Your task to perform on an android device: toggle sleep mode Image 0: 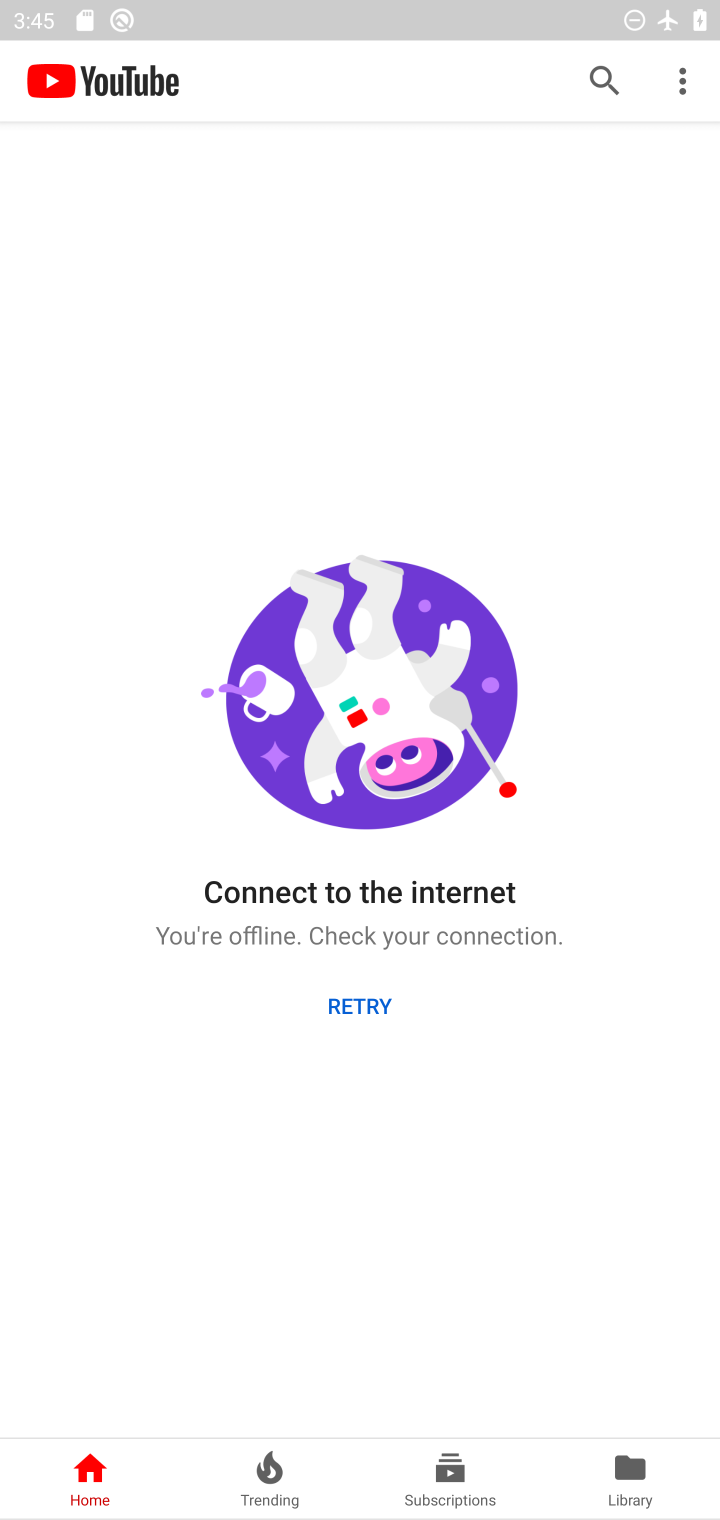
Step 0: press home button
Your task to perform on an android device: toggle sleep mode Image 1: 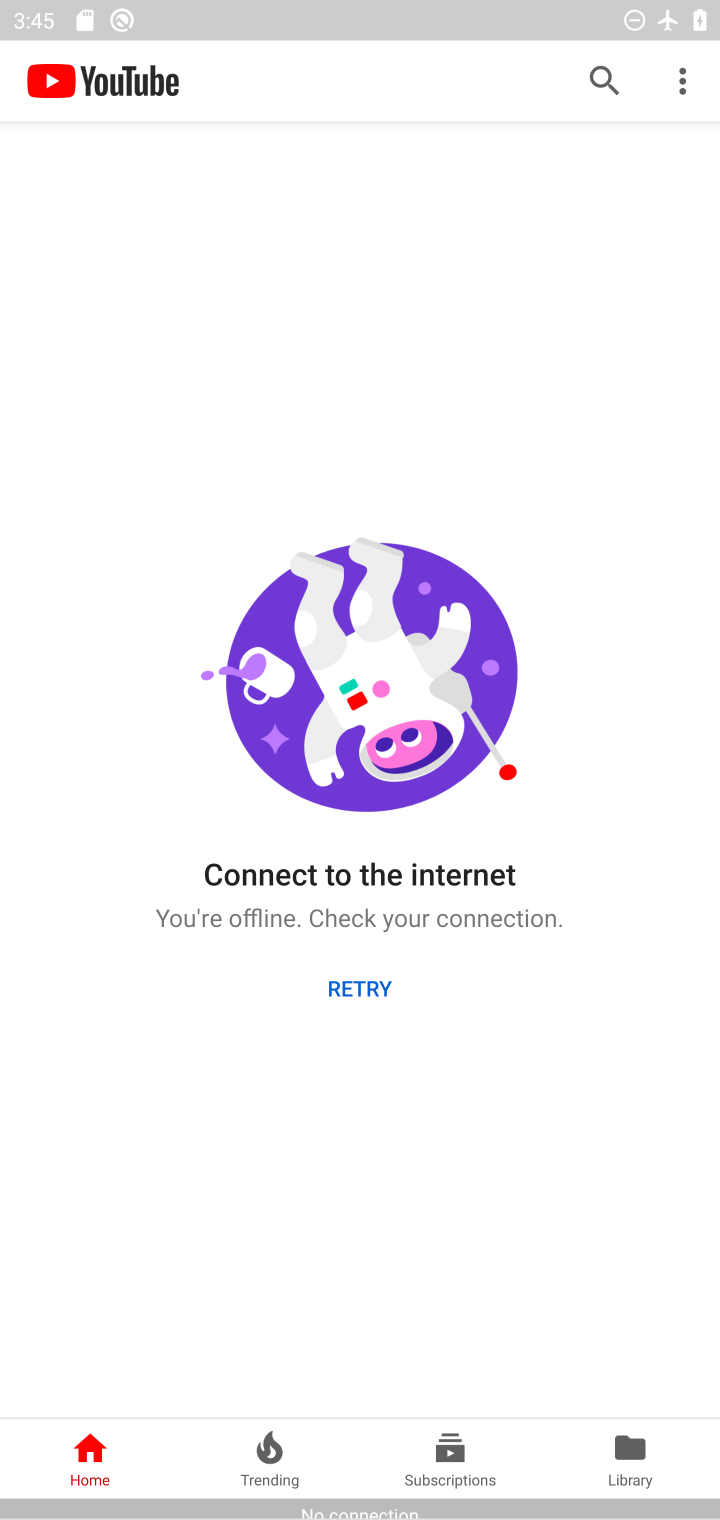
Step 1: press home button
Your task to perform on an android device: toggle sleep mode Image 2: 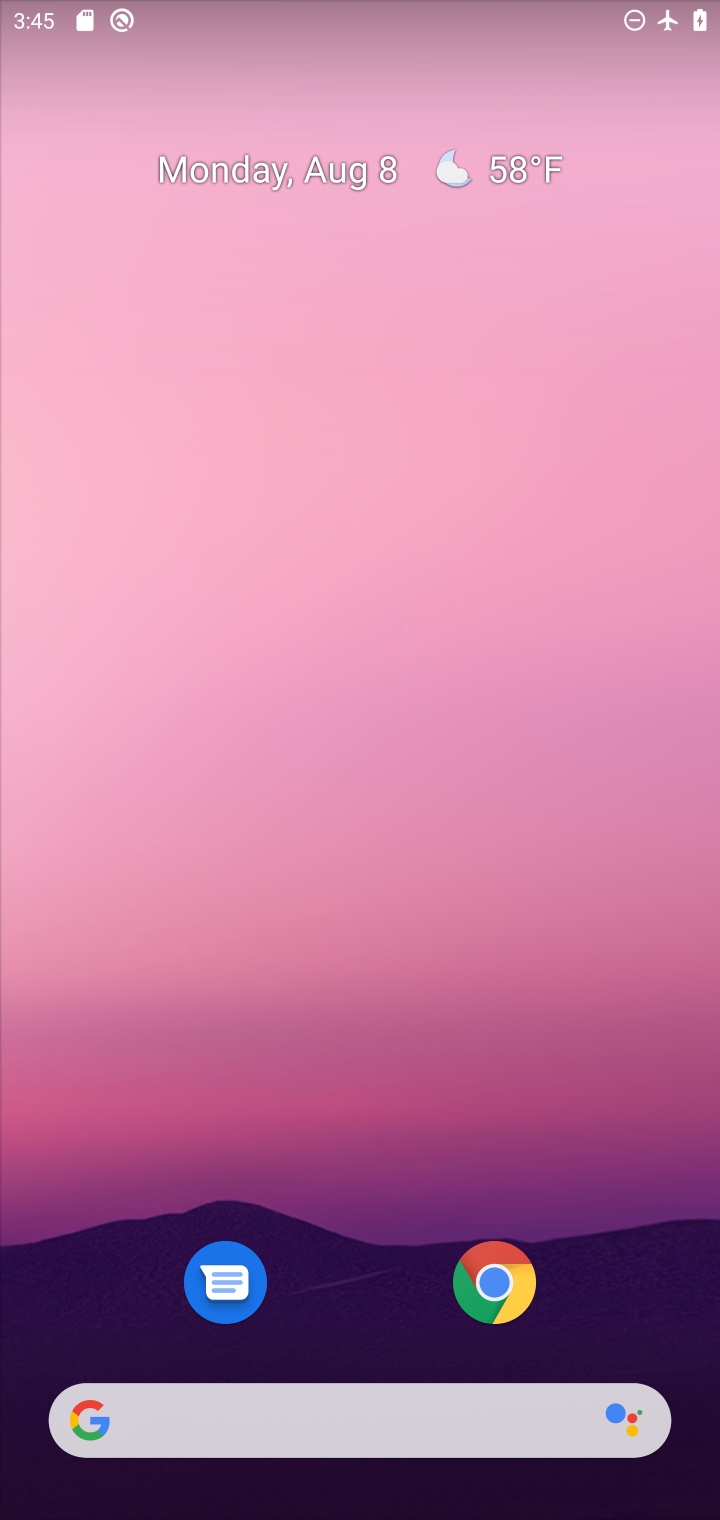
Step 2: drag from (340, 1144) to (545, 137)
Your task to perform on an android device: toggle sleep mode Image 3: 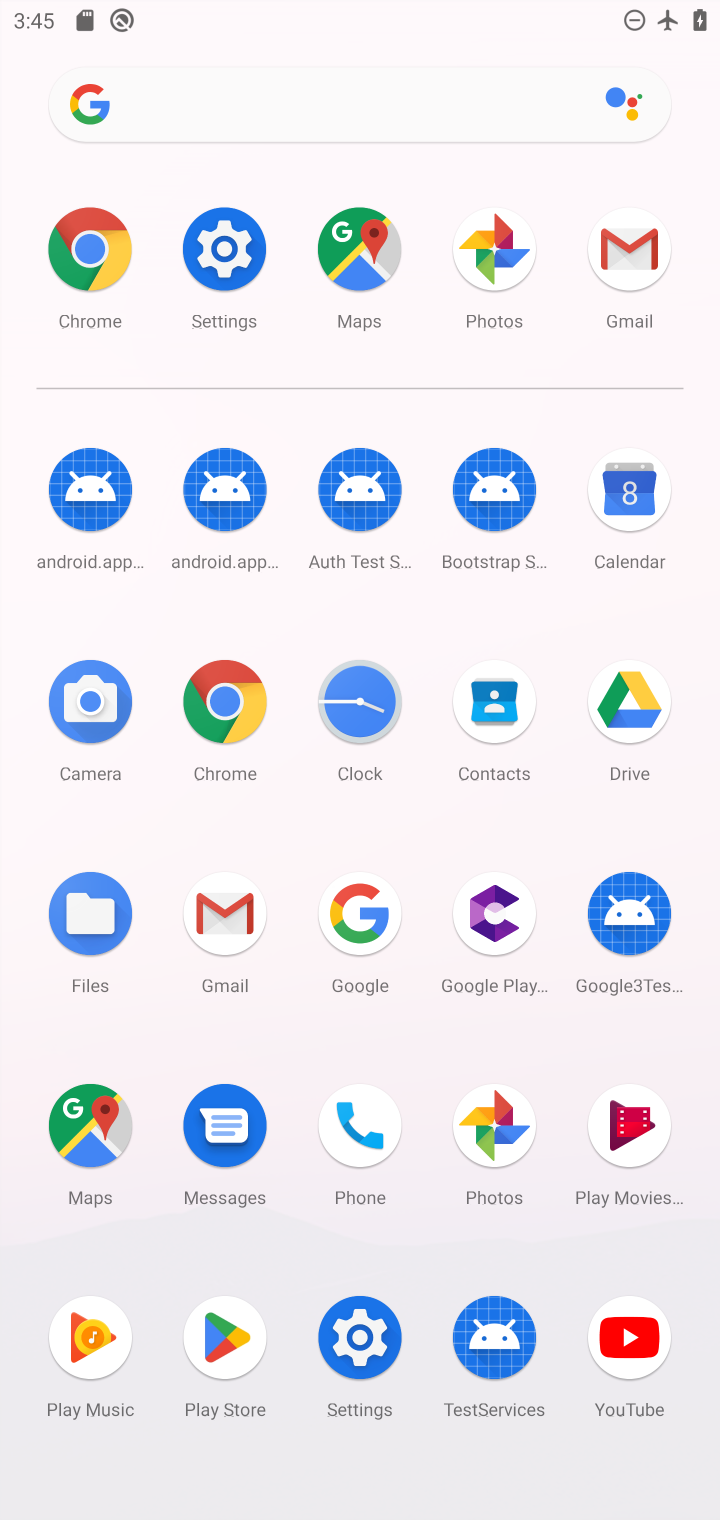
Step 3: click (208, 241)
Your task to perform on an android device: toggle sleep mode Image 4: 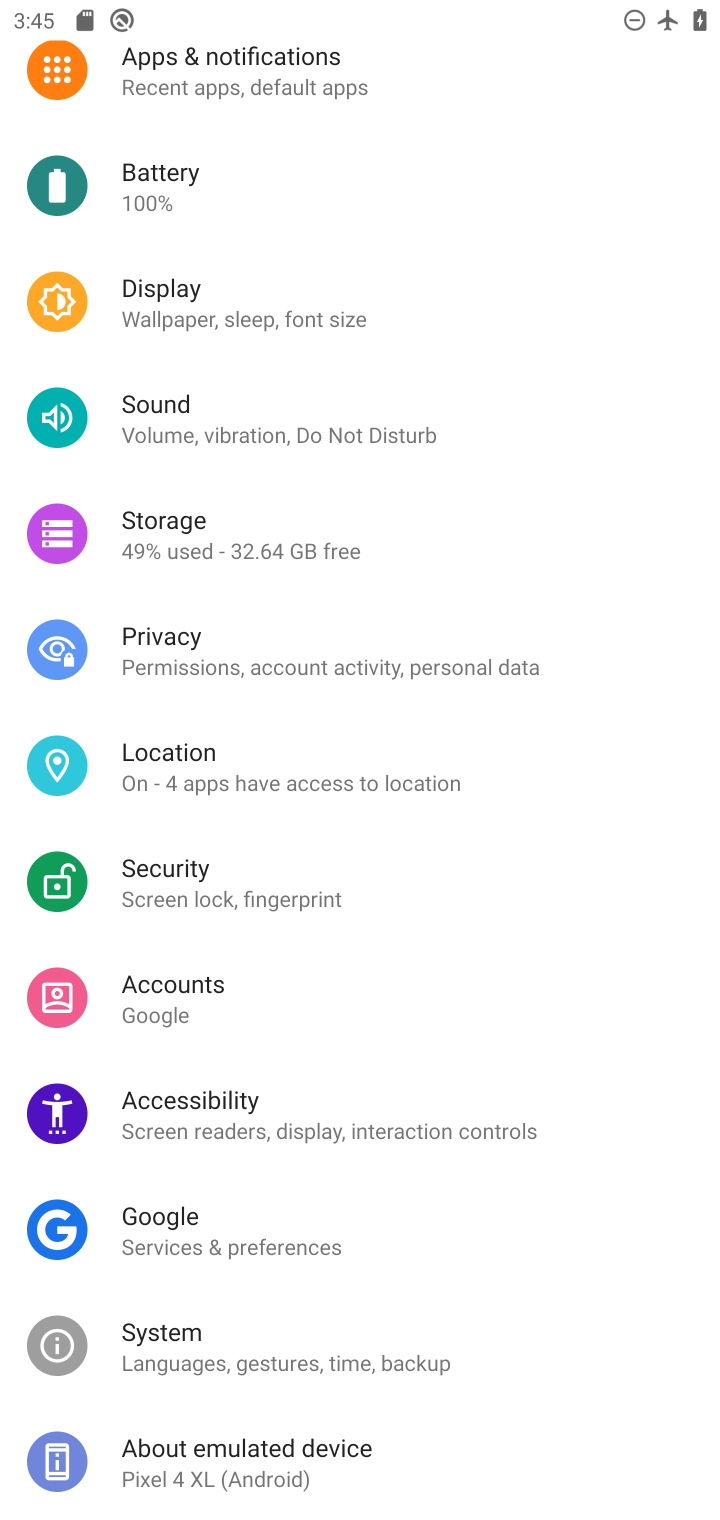
Step 4: click (234, 321)
Your task to perform on an android device: toggle sleep mode Image 5: 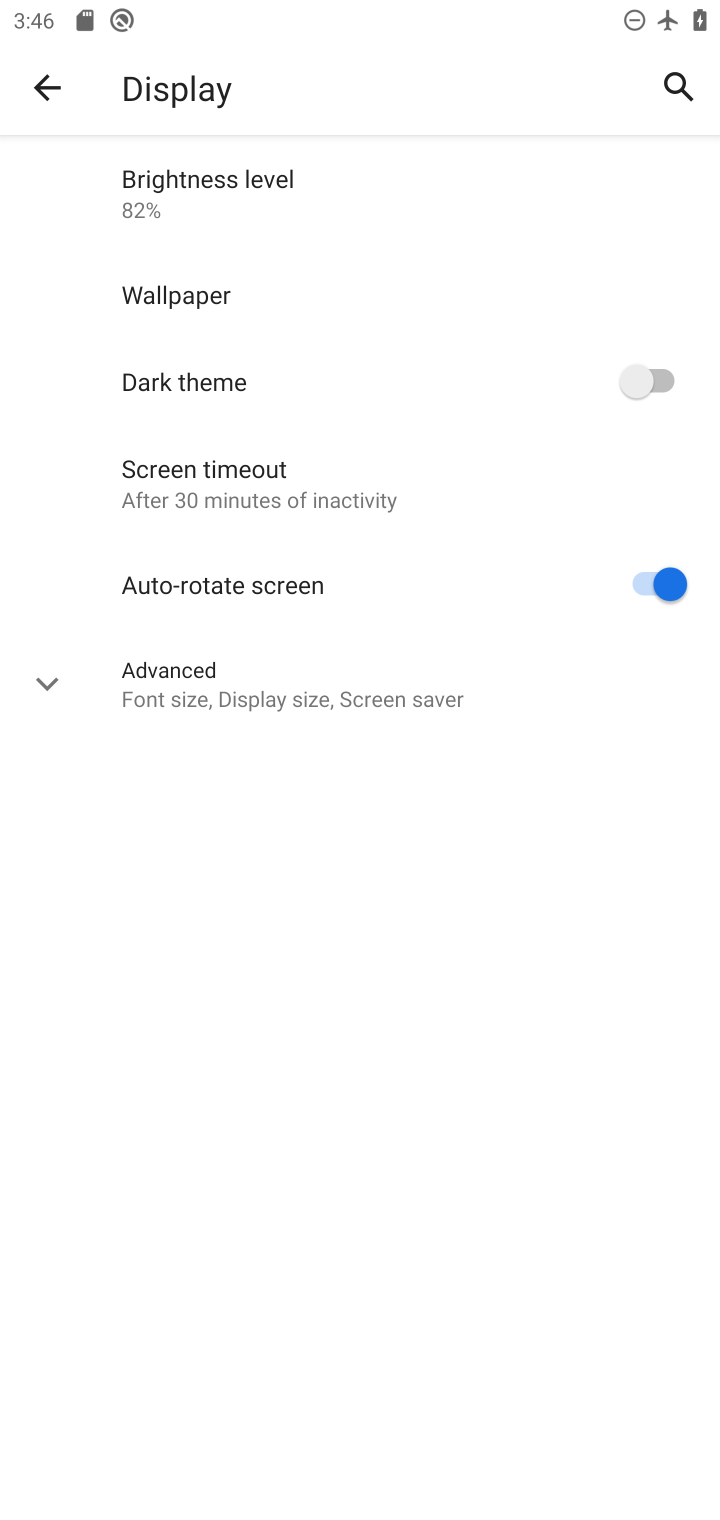
Step 5: click (239, 458)
Your task to perform on an android device: toggle sleep mode Image 6: 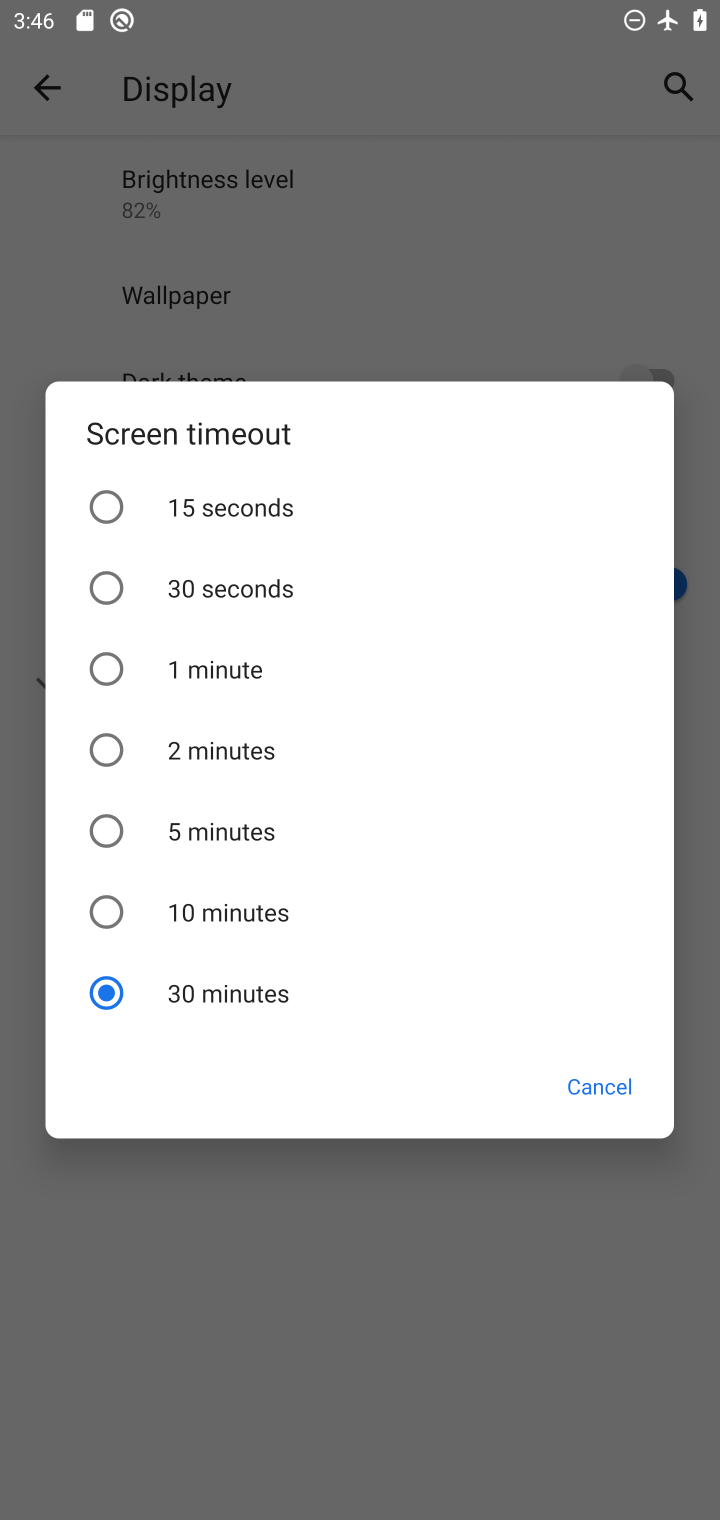
Step 6: click (216, 897)
Your task to perform on an android device: toggle sleep mode Image 7: 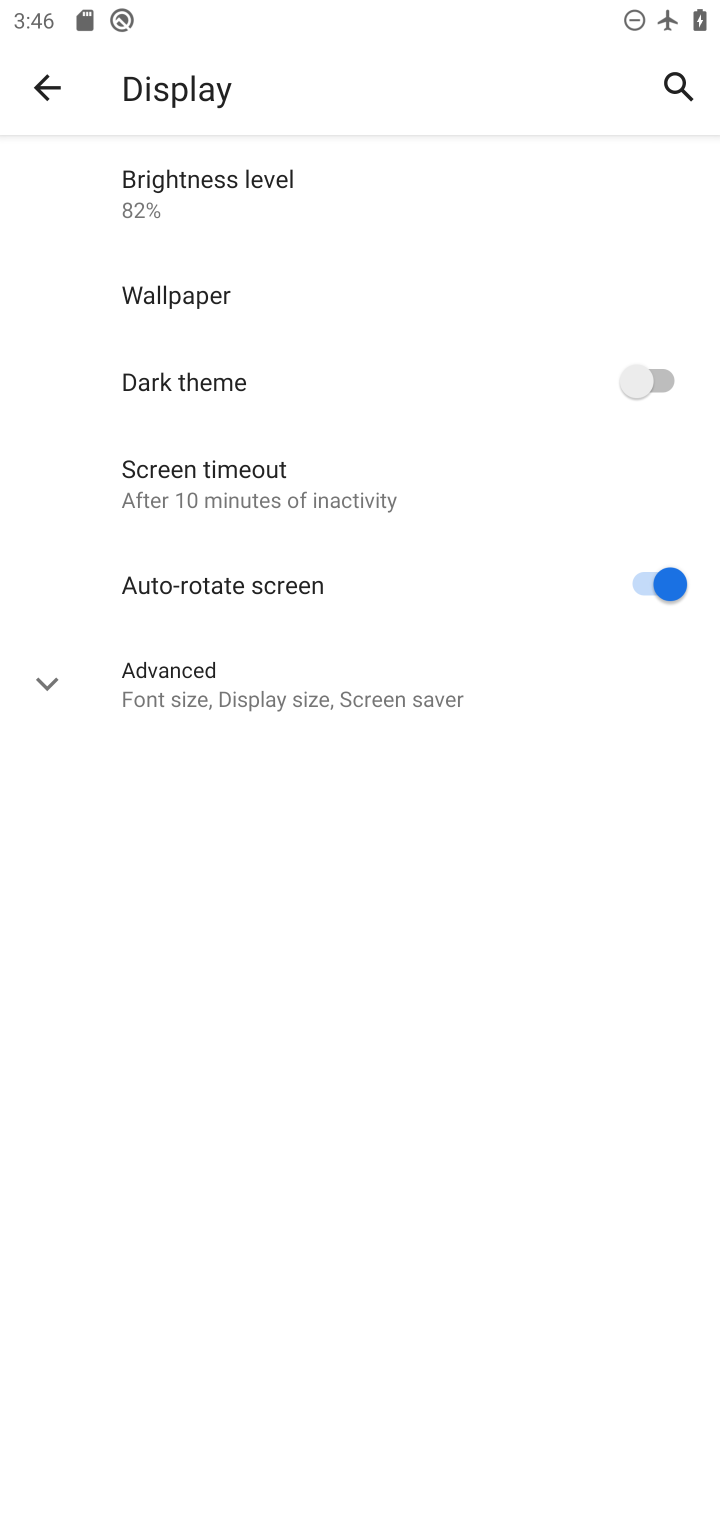
Step 7: task complete